Your task to perform on an android device: Search for Mexican restaurants on Maps Image 0: 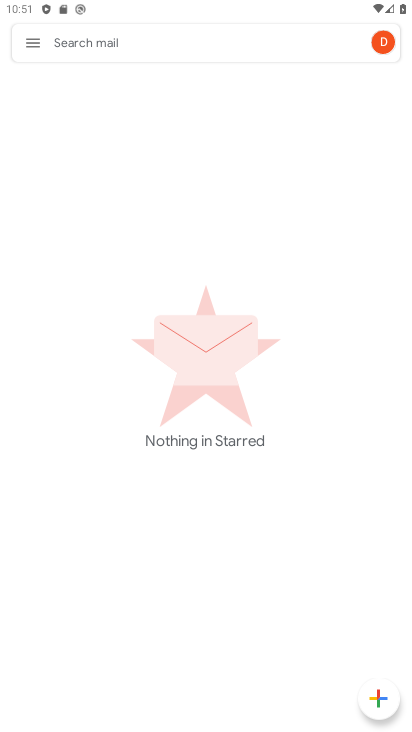
Step 0: press home button
Your task to perform on an android device: Search for Mexican restaurants on Maps Image 1: 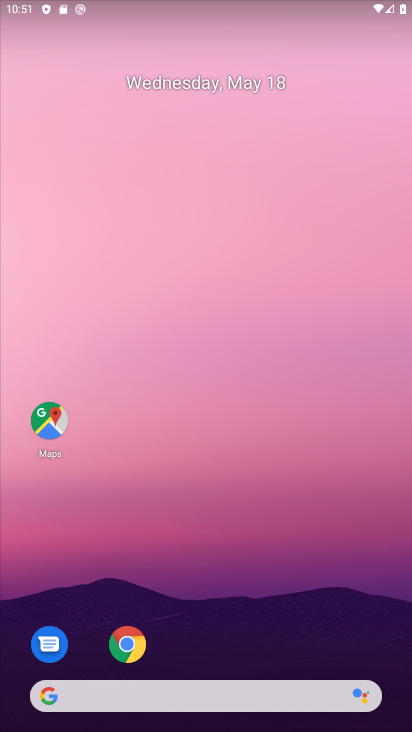
Step 1: drag from (326, 628) to (261, 10)
Your task to perform on an android device: Search for Mexican restaurants on Maps Image 2: 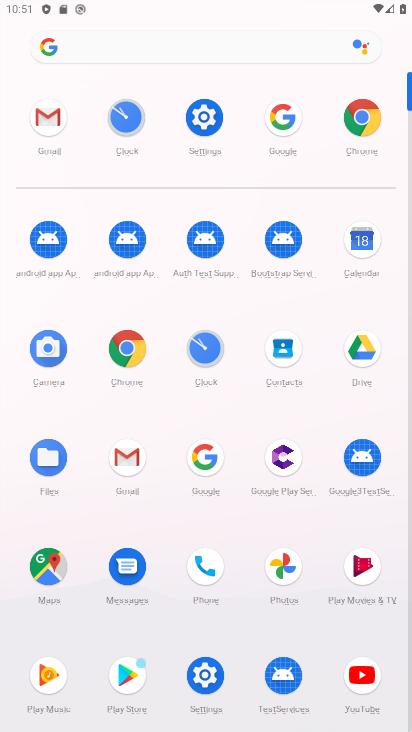
Step 2: click (53, 554)
Your task to perform on an android device: Search for Mexican restaurants on Maps Image 3: 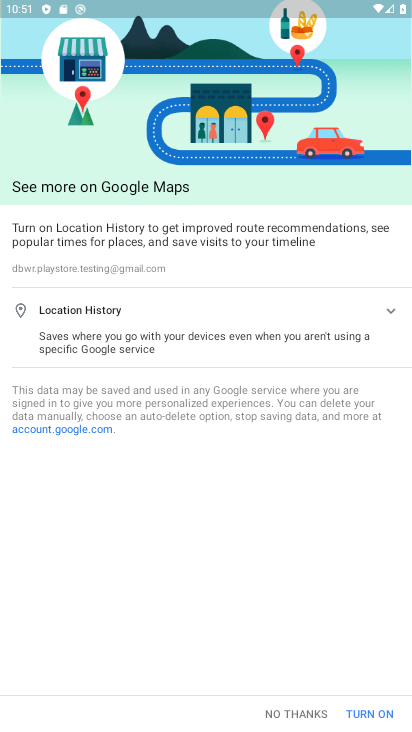
Step 3: click (287, 710)
Your task to perform on an android device: Search for Mexican restaurants on Maps Image 4: 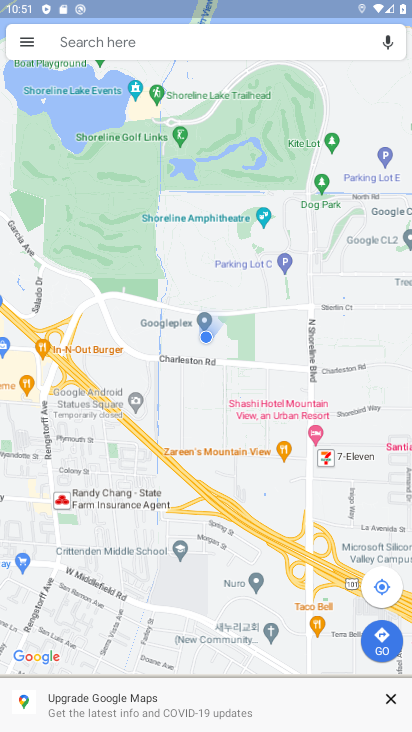
Step 4: click (137, 45)
Your task to perform on an android device: Search for Mexican restaurants on Maps Image 5: 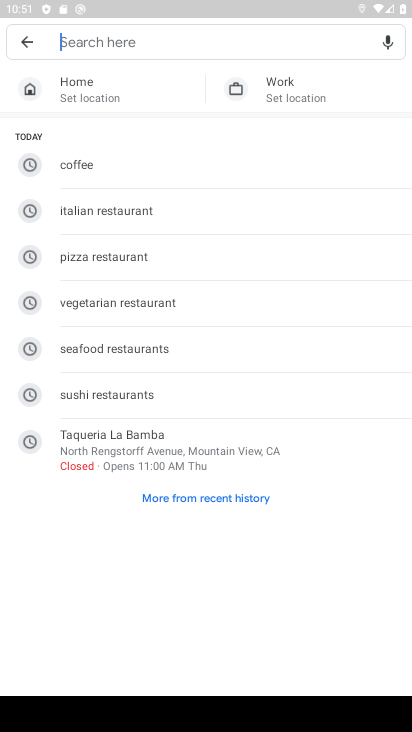
Step 5: type "mexican restaurants"
Your task to perform on an android device: Search for Mexican restaurants on Maps Image 6: 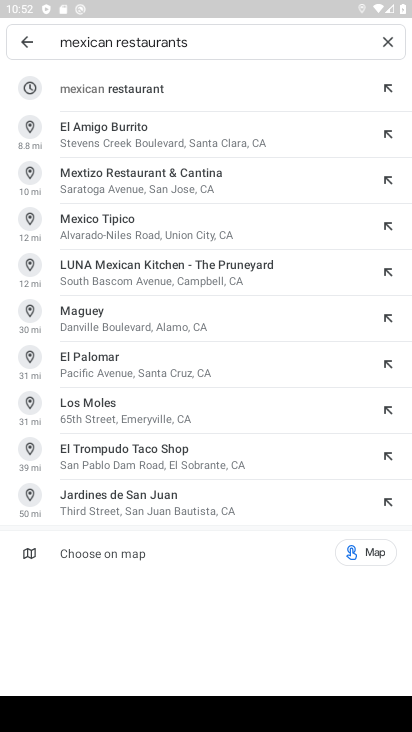
Step 6: click (154, 92)
Your task to perform on an android device: Search for Mexican restaurants on Maps Image 7: 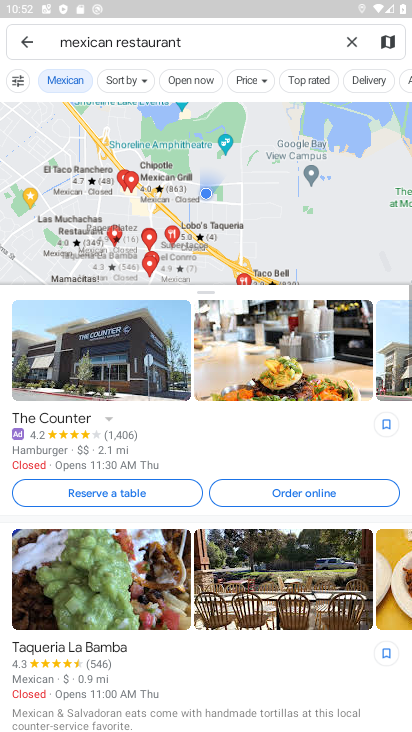
Step 7: task complete